Your task to perform on an android device: clear history in the chrome app Image 0: 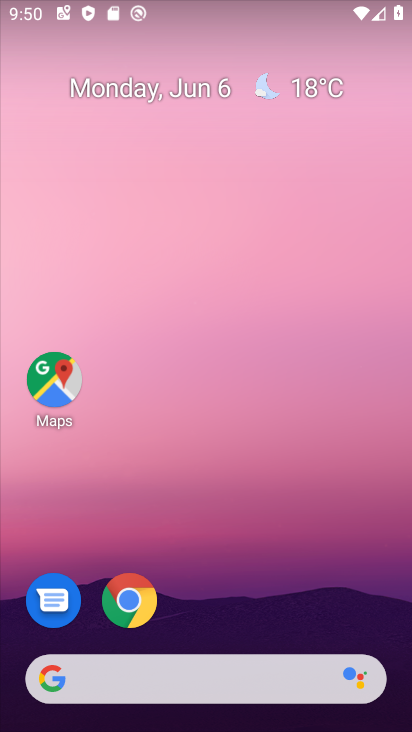
Step 0: drag from (276, 539) to (259, 10)
Your task to perform on an android device: clear history in the chrome app Image 1: 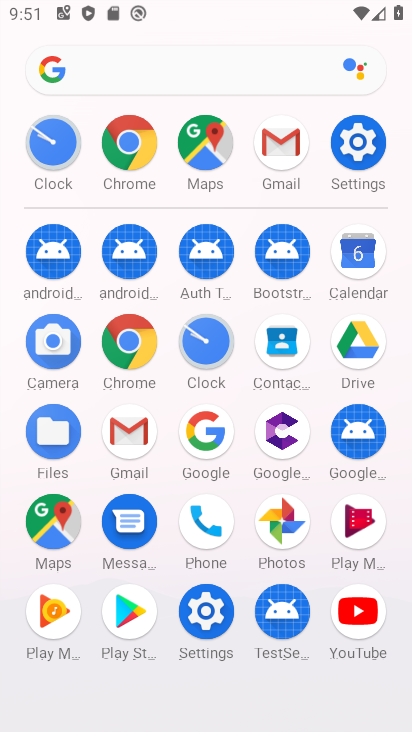
Step 1: click (131, 335)
Your task to perform on an android device: clear history in the chrome app Image 2: 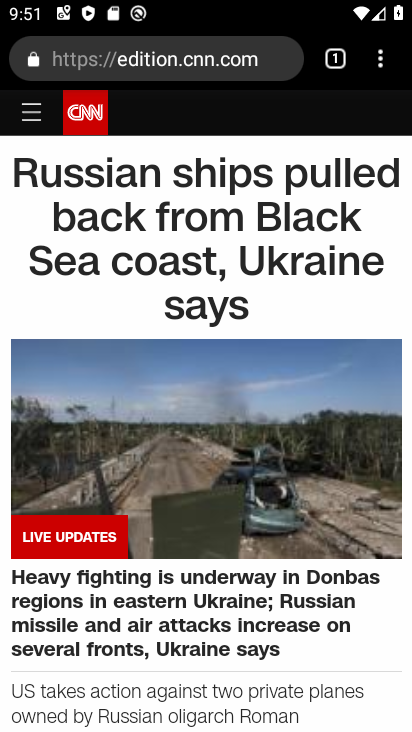
Step 2: drag from (383, 47) to (192, 330)
Your task to perform on an android device: clear history in the chrome app Image 3: 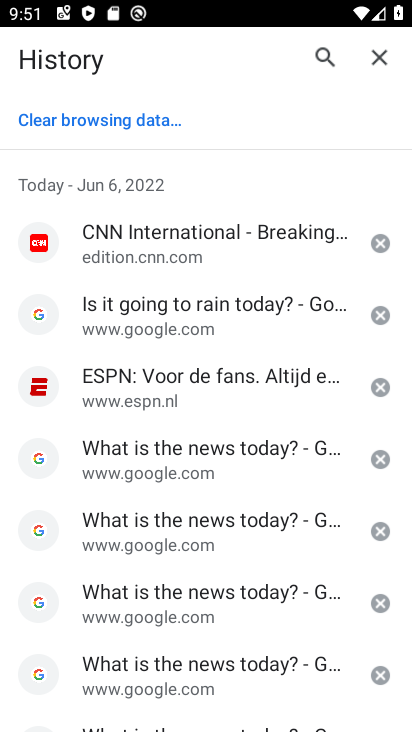
Step 3: click (132, 108)
Your task to perform on an android device: clear history in the chrome app Image 4: 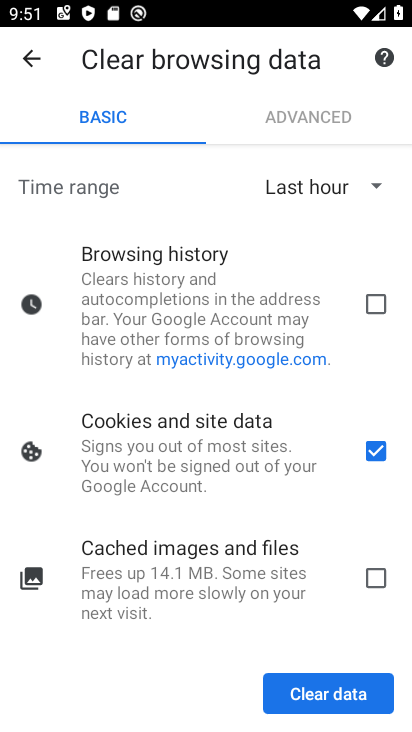
Step 4: click (367, 294)
Your task to perform on an android device: clear history in the chrome app Image 5: 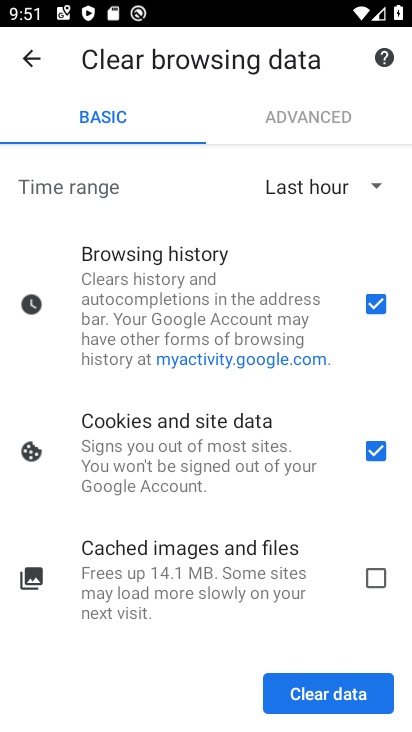
Step 5: click (377, 453)
Your task to perform on an android device: clear history in the chrome app Image 6: 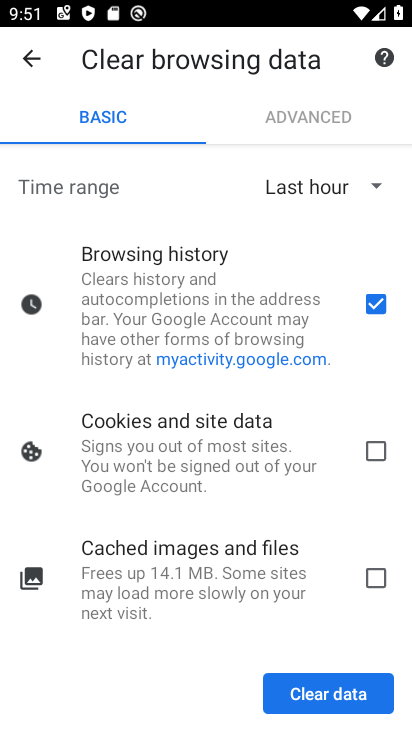
Step 6: click (336, 700)
Your task to perform on an android device: clear history in the chrome app Image 7: 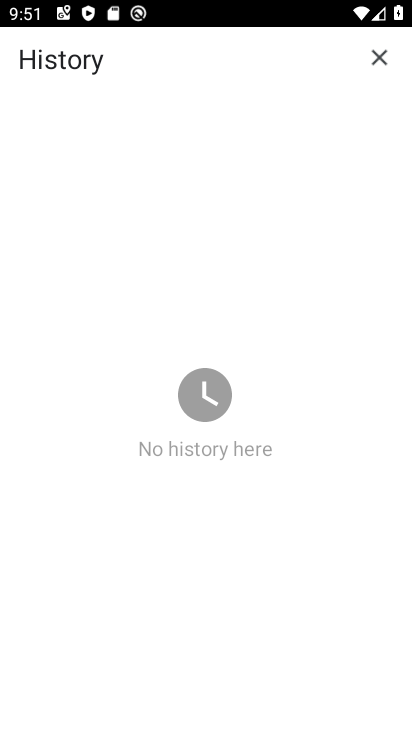
Step 7: task complete